Your task to perform on an android device: Go to accessibility settings Image 0: 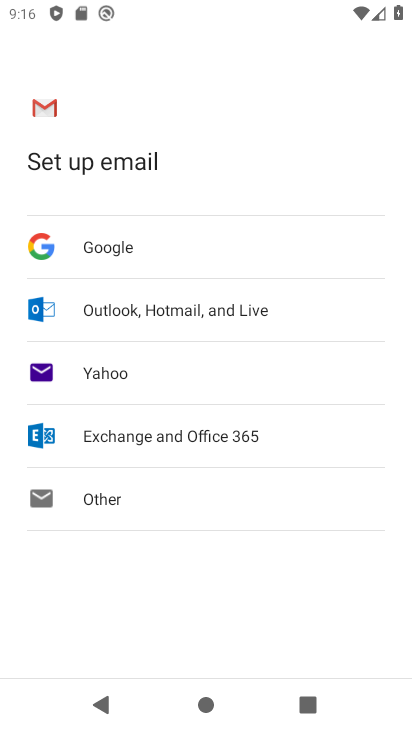
Step 0: press home button
Your task to perform on an android device: Go to accessibility settings Image 1: 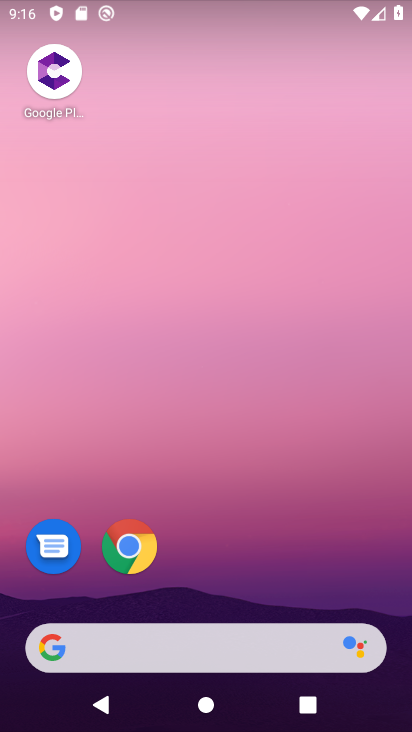
Step 1: drag from (343, 529) to (335, 109)
Your task to perform on an android device: Go to accessibility settings Image 2: 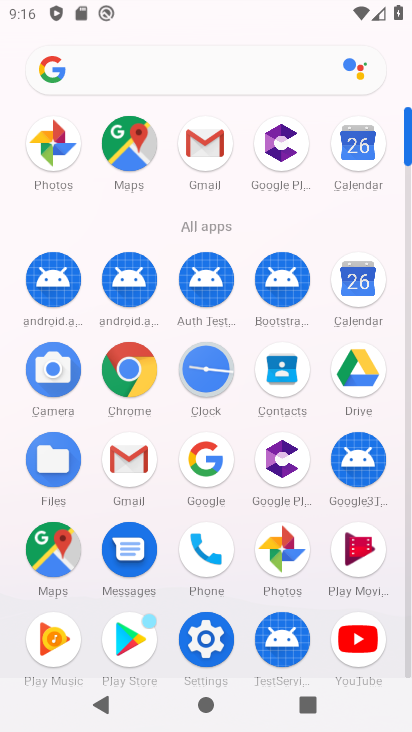
Step 2: click (191, 642)
Your task to perform on an android device: Go to accessibility settings Image 3: 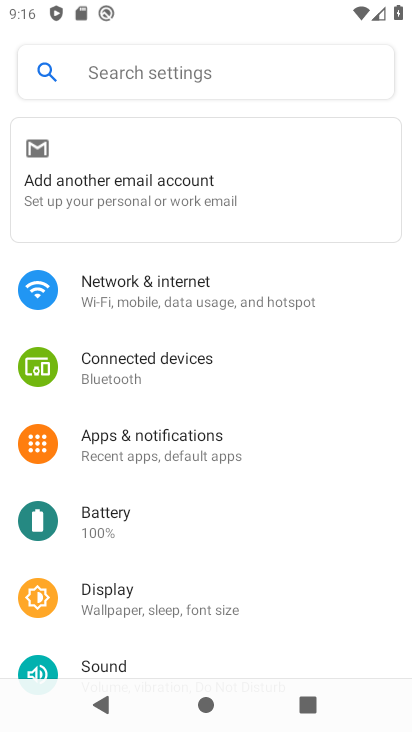
Step 3: drag from (303, 603) to (303, 238)
Your task to perform on an android device: Go to accessibility settings Image 4: 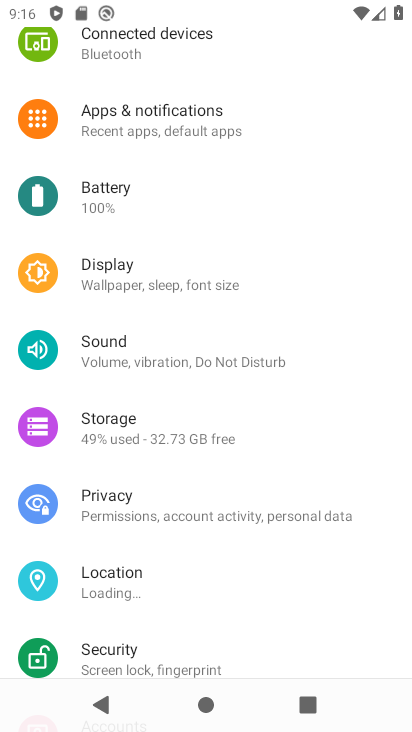
Step 4: drag from (303, 531) to (305, 244)
Your task to perform on an android device: Go to accessibility settings Image 5: 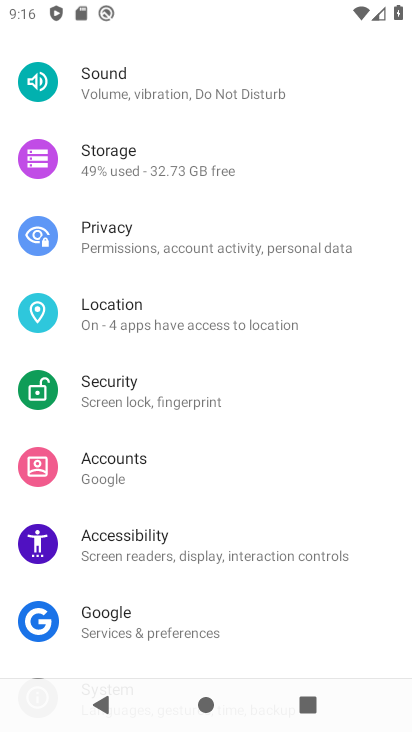
Step 5: click (201, 534)
Your task to perform on an android device: Go to accessibility settings Image 6: 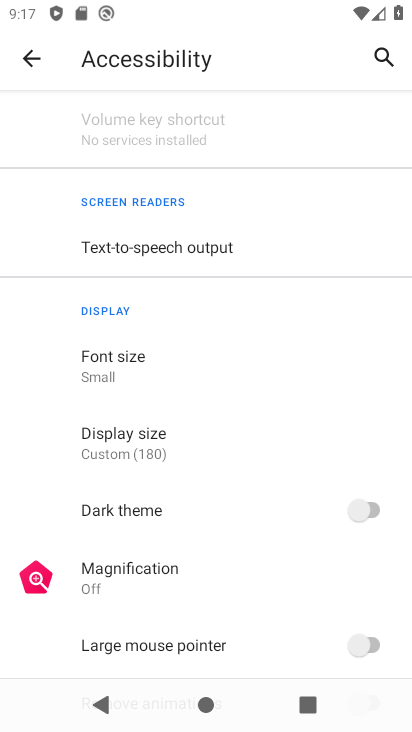
Step 6: task complete